Your task to perform on an android device: Open Android settings Image 0: 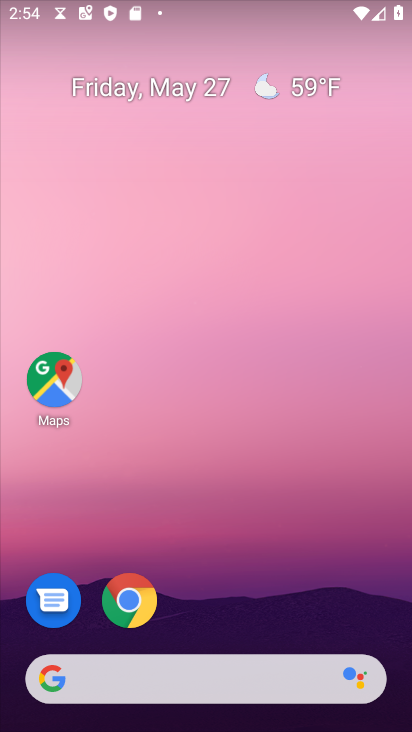
Step 0: drag from (249, 556) to (211, 17)
Your task to perform on an android device: Open Android settings Image 1: 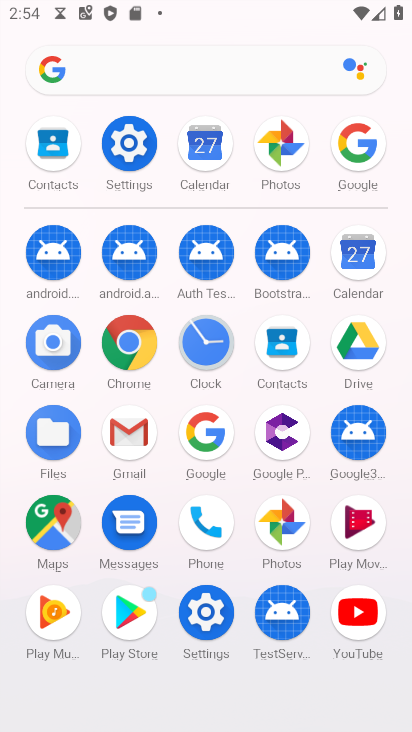
Step 1: click (127, 145)
Your task to perform on an android device: Open Android settings Image 2: 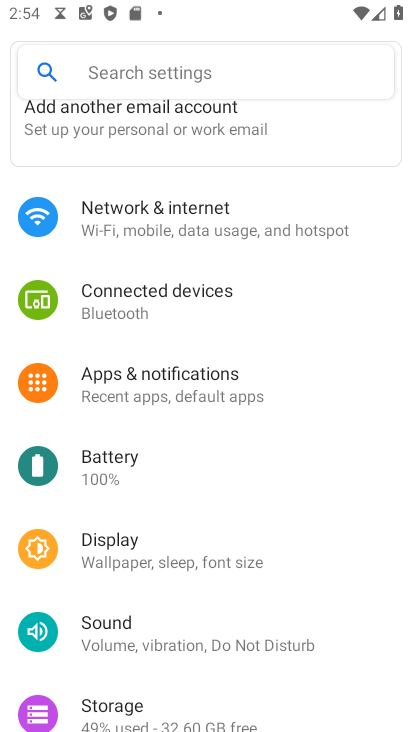
Step 2: task complete